Your task to perform on an android device: Open Reddit.com Image 0: 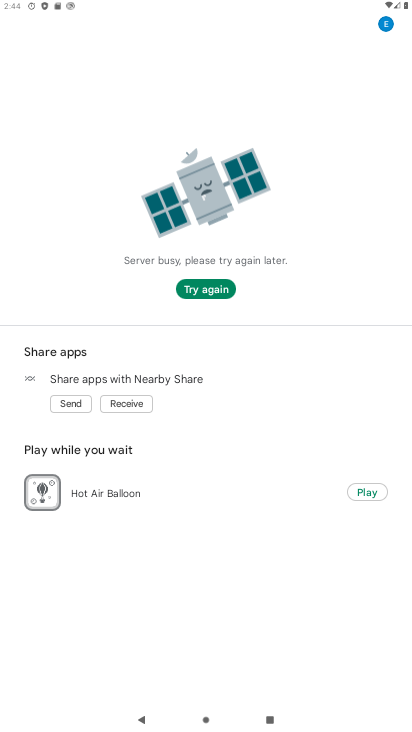
Step 0: press home button
Your task to perform on an android device: Open Reddit.com Image 1: 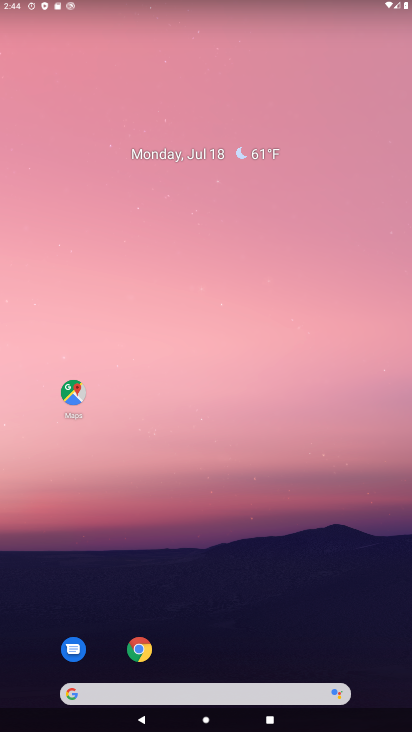
Step 1: click (102, 694)
Your task to perform on an android device: Open Reddit.com Image 2: 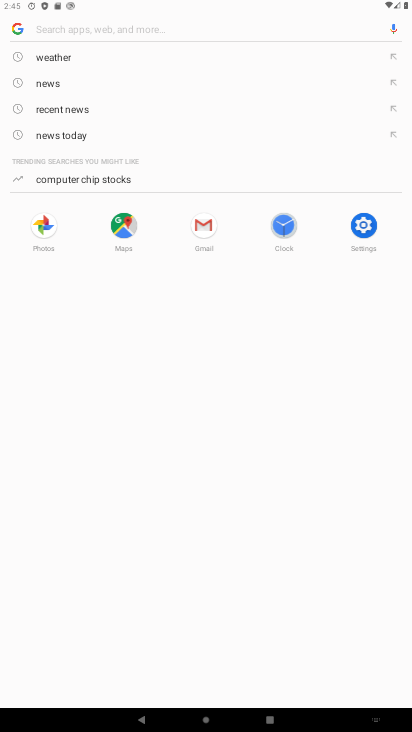
Step 2: type " Reddit.com"
Your task to perform on an android device: Open Reddit.com Image 3: 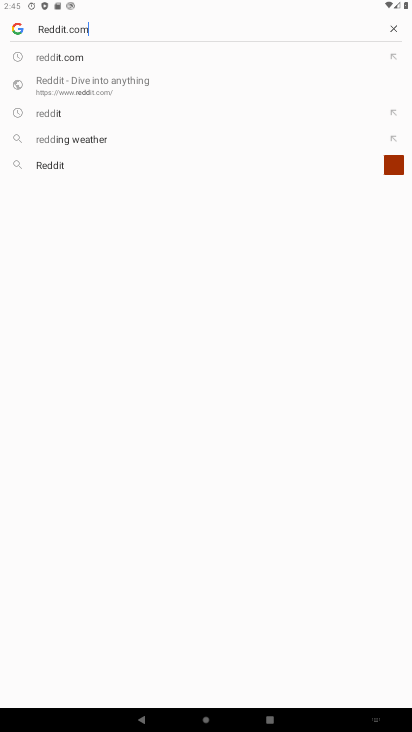
Step 3: type ""
Your task to perform on an android device: Open Reddit.com Image 4: 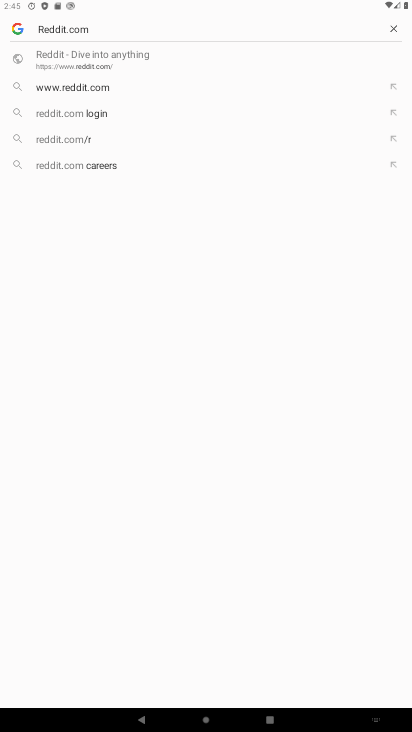
Step 4: type ""
Your task to perform on an android device: Open Reddit.com Image 5: 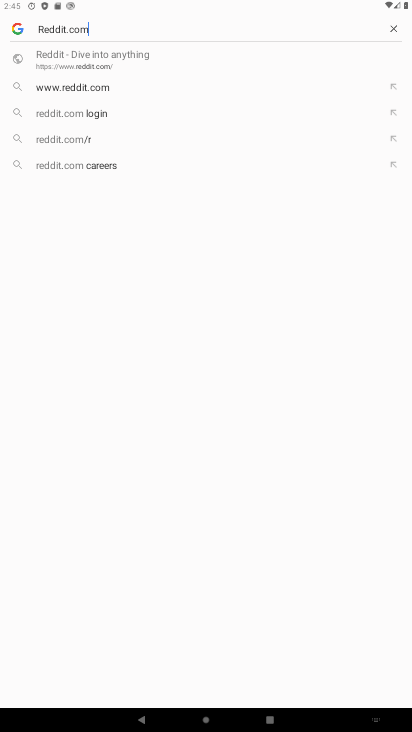
Step 5: task complete